Your task to perform on an android device: toggle javascript in the chrome app Image 0: 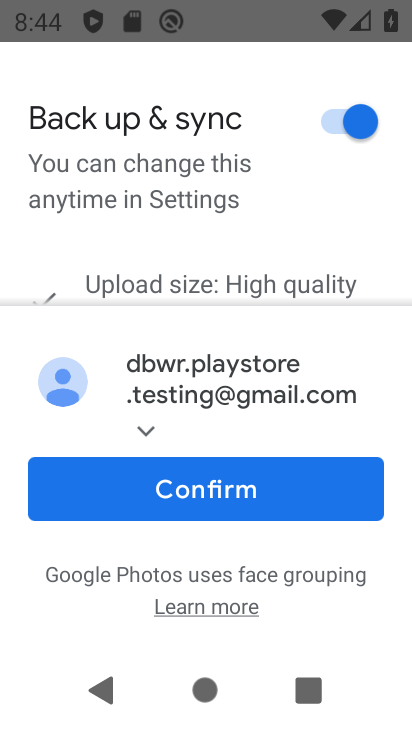
Step 0: press home button
Your task to perform on an android device: toggle javascript in the chrome app Image 1: 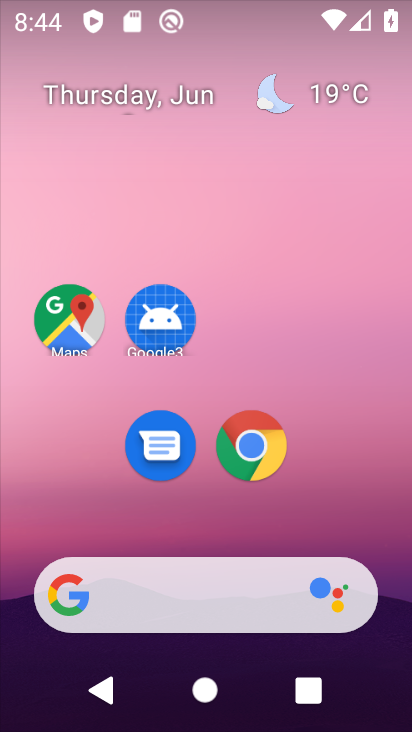
Step 1: click (250, 430)
Your task to perform on an android device: toggle javascript in the chrome app Image 2: 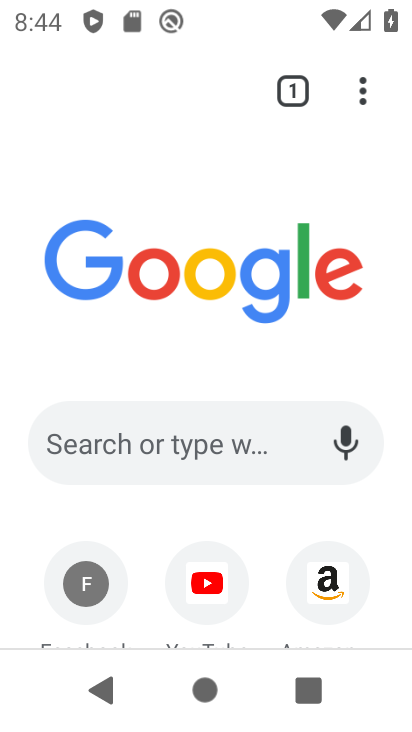
Step 2: click (361, 82)
Your task to perform on an android device: toggle javascript in the chrome app Image 3: 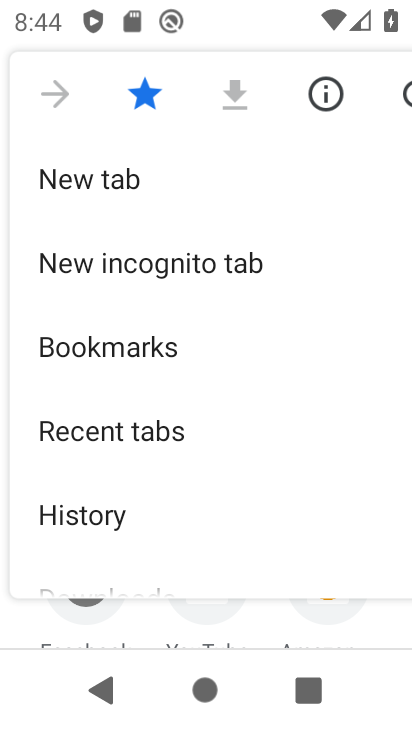
Step 3: drag from (127, 527) to (183, 199)
Your task to perform on an android device: toggle javascript in the chrome app Image 4: 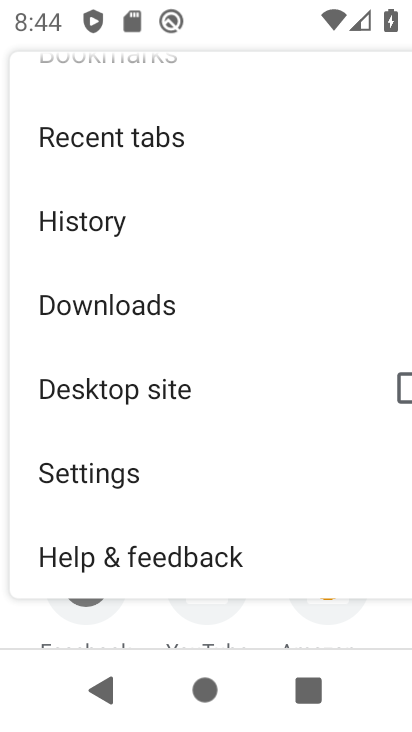
Step 4: click (111, 480)
Your task to perform on an android device: toggle javascript in the chrome app Image 5: 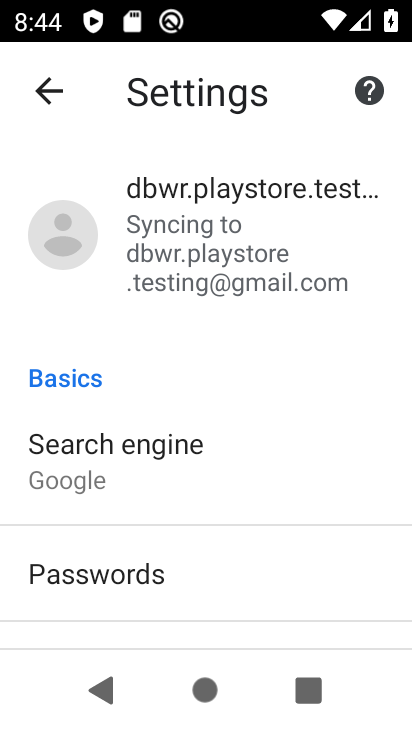
Step 5: drag from (213, 546) to (267, 171)
Your task to perform on an android device: toggle javascript in the chrome app Image 6: 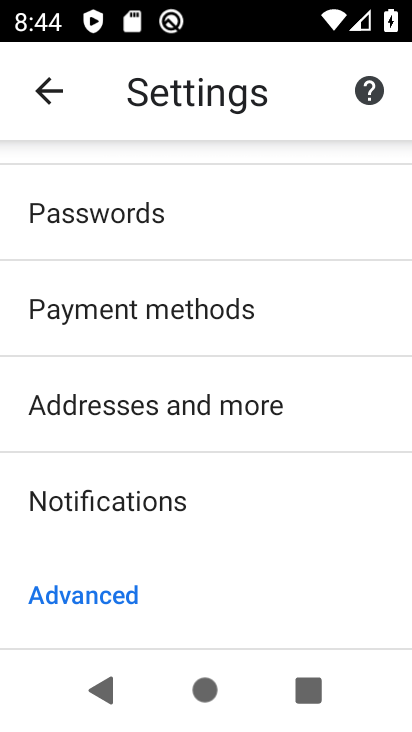
Step 6: drag from (152, 563) to (194, 200)
Your task to perform on an android device: toggle javascript in the chrome app Image 7: 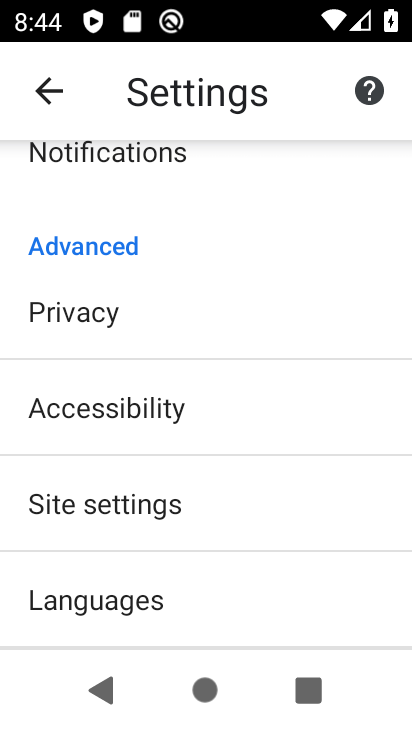
Step 7: click (178, 520)
Your task to perform on an android device: toggle javascript in the chrome app Image 8: 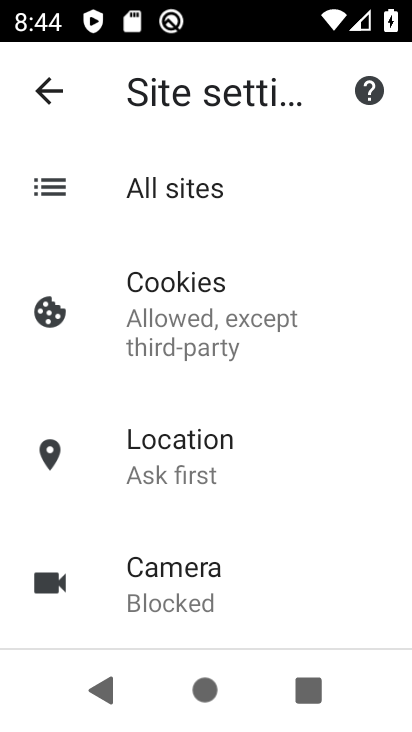
Step 8: drag from (230, 492) to (314, 129)
Your task to perform on an android device: toggle javascript in the chrome app Image 9: 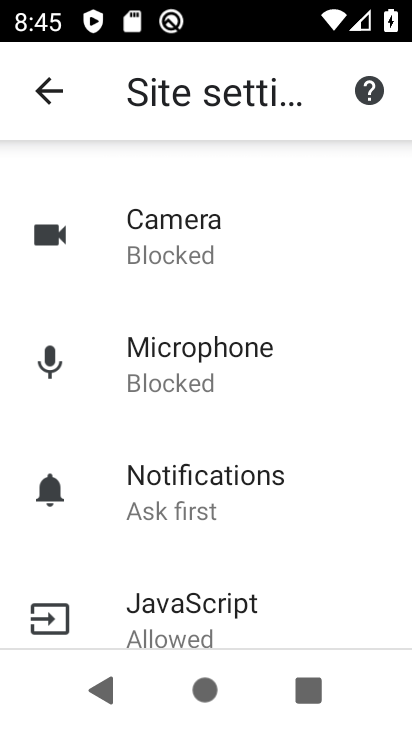
Step 9: click (185, 601)
Your task to perform on an android device: toggle javascript in the chrome app Image 10: 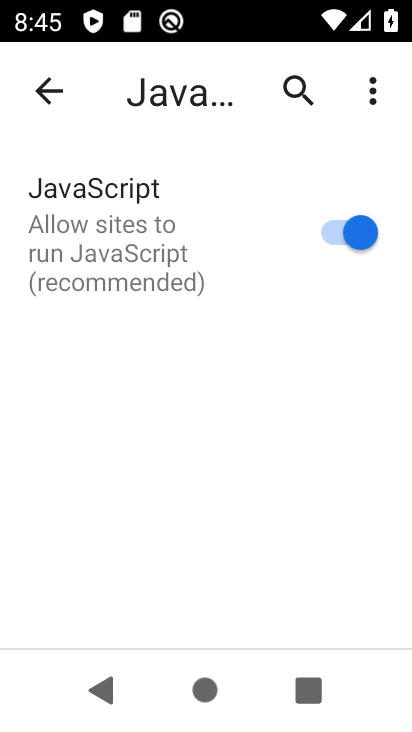
Step 10: click (333, 234)
Your task to perform on an android device: toggle javascript in the chrome app Image 11: 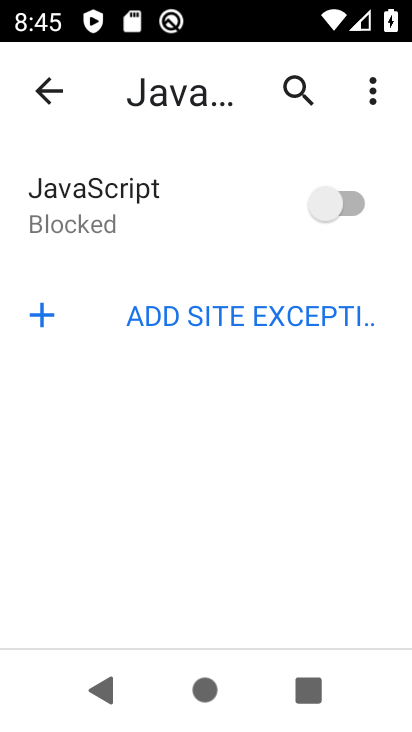
Step 11: task complete